Your task to perform on an android device: remove spam from my inbox in the gmail app Image 0: 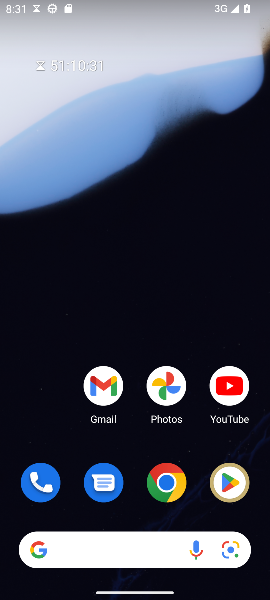
Step 0: drag from (108, 517) to (96, 141)
Your task to perform on an android device: remove spam from my inbox in the gmail app Image 1: 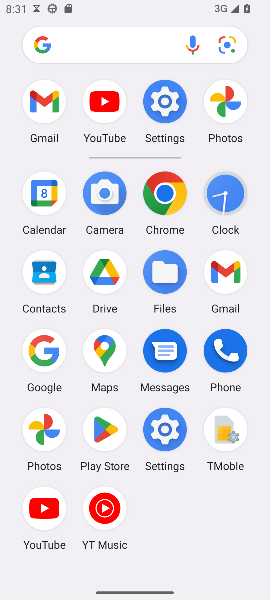
Step 1: click (224, 276)
Your task to perform on an android device: remove spam from my inbox in the gmail app Image 2: 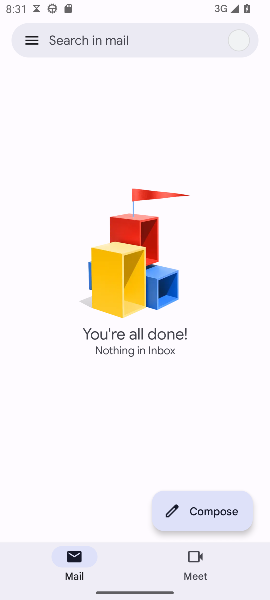
Step 2: click (28, 41)
Your task to perform on an android device: remove spam from my inbox in the gmail app Image 3: 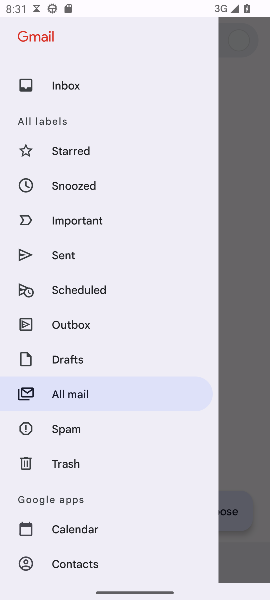
Step 3: click (71, 434)
Your task to perform on an android device: remove spam from my inbox in the gmail app Image 4: 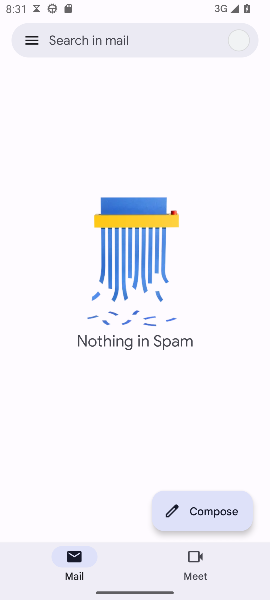
Step 4: task complete